Your task to perform on an android device: Toggle the flashlight Image 0: 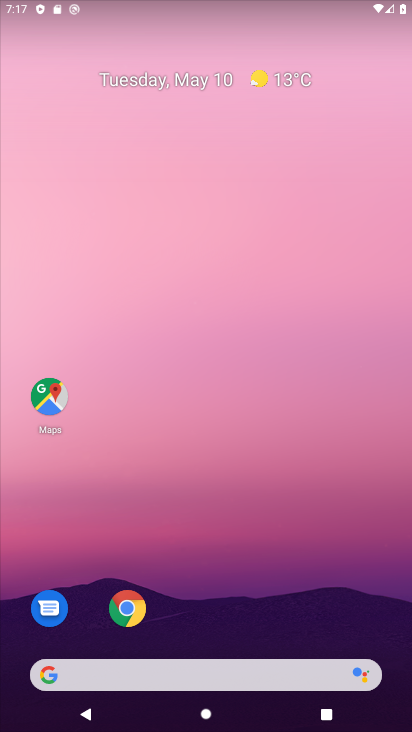
Step 0: drag from (244, 646) to (266, 37)
Your task to perform on an android device: Toggle the flashlight Image 1: 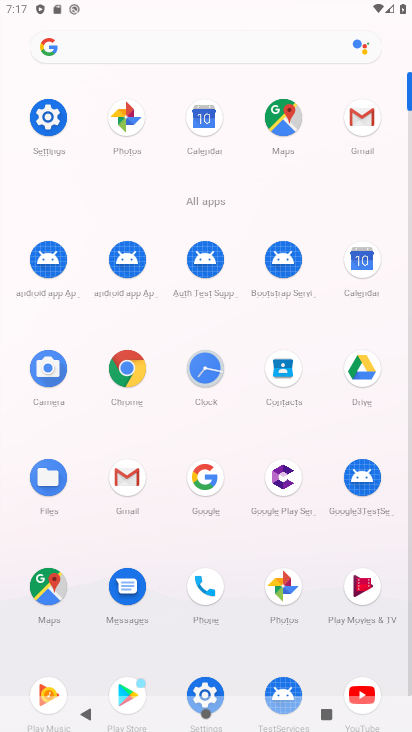
Step 1: task complete